Your task to perform on an android device: Show the shopping cart on newegg.com. Add dell xps to the cart on newegg.com Image 0: 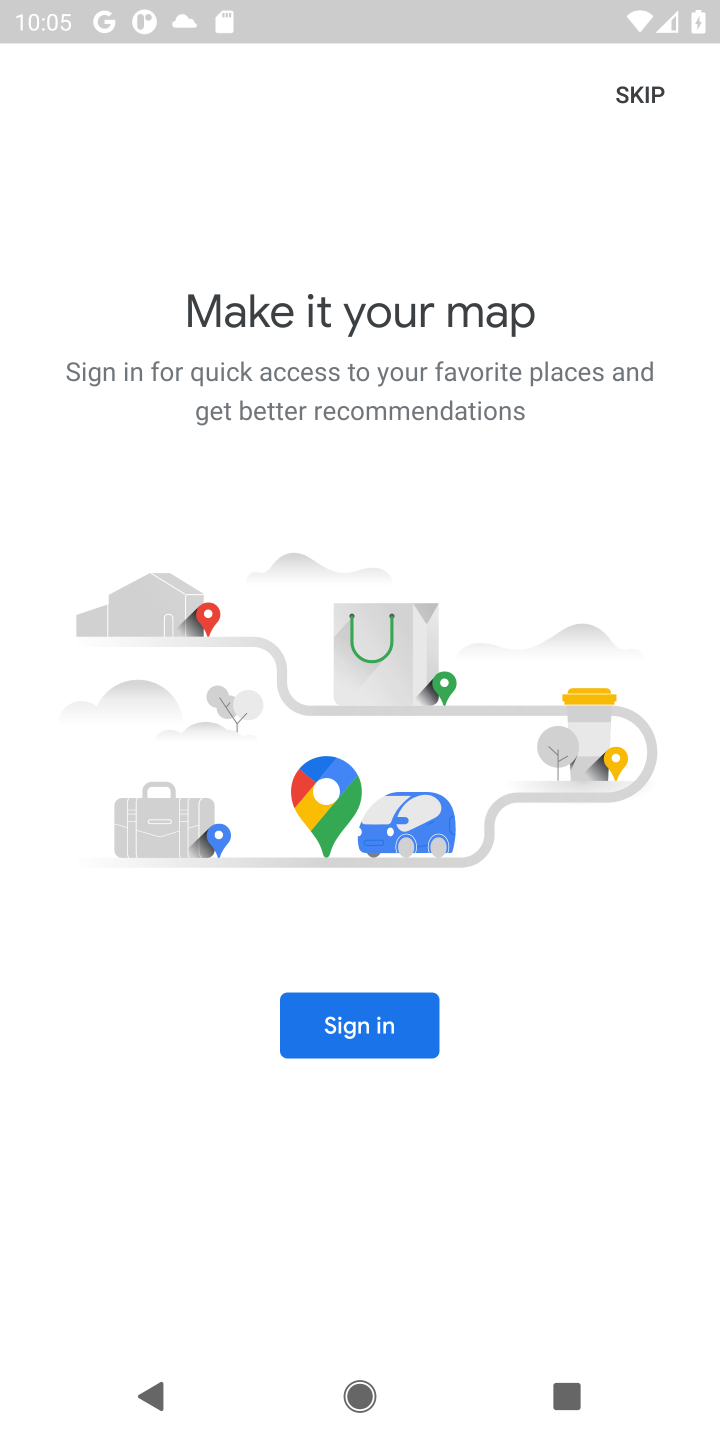
Step 0: press home button
Your task to perform on an android device: Show the shopping cart on newegg.com. Add dell xps to the cart on newegg.com Image 1: 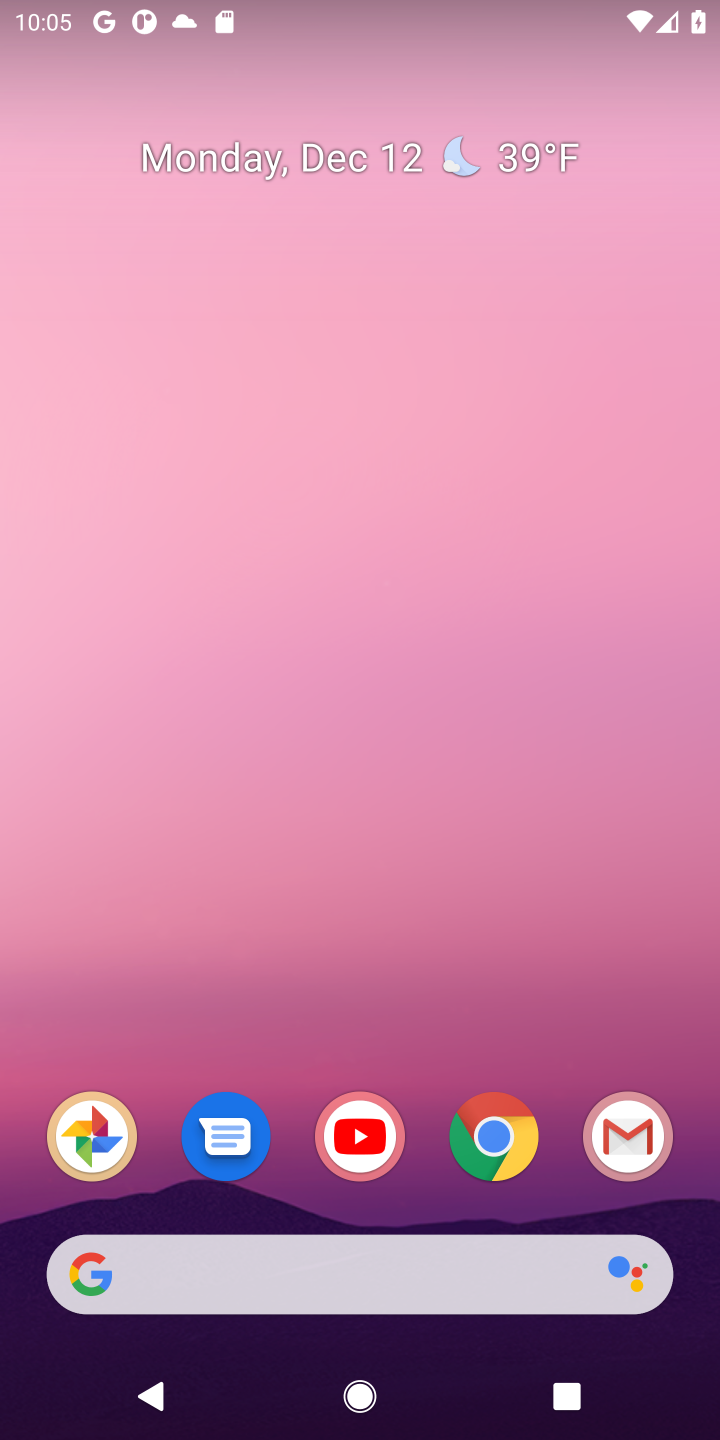
Step 1: click (490, 1160)
Your task to perform on an android device: Show the shopping cart on newegg.com. Add dell xps to the cart on newegg.com Image 2: 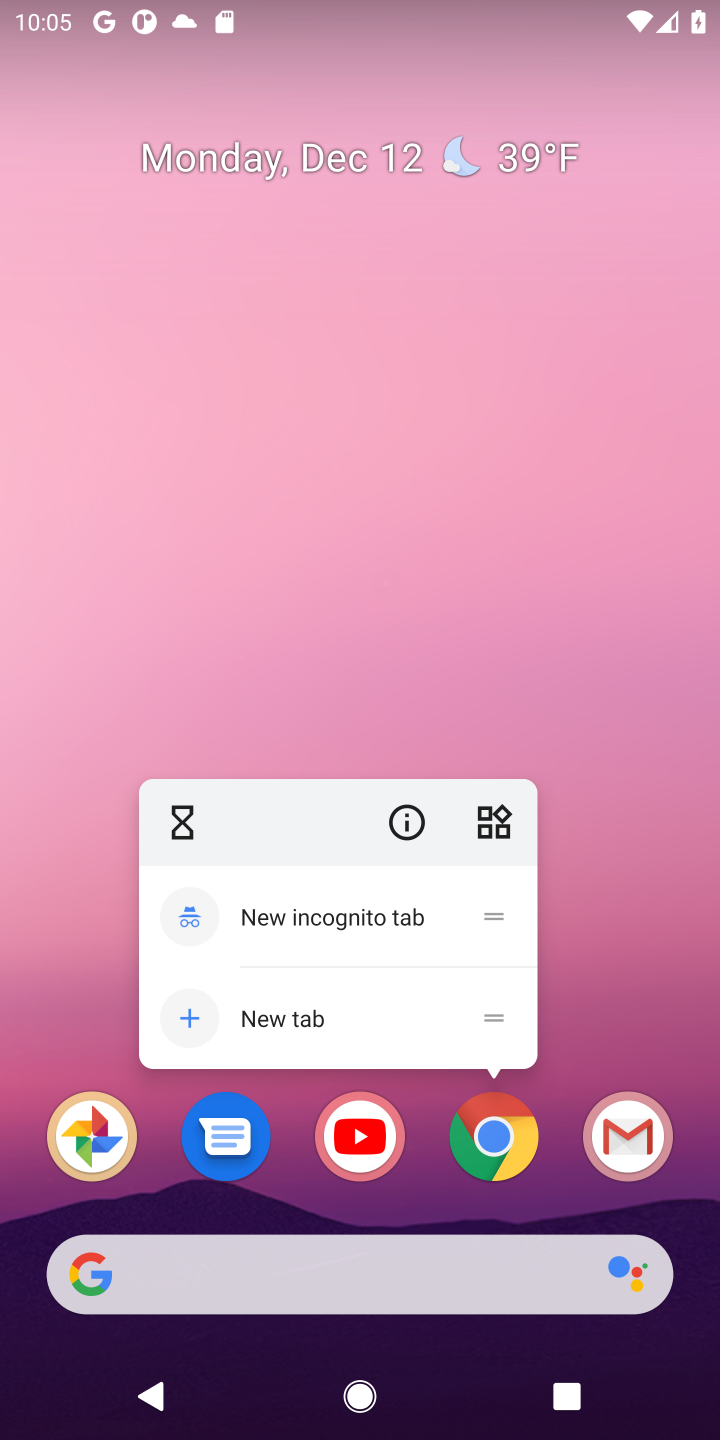
Step 2: click (499, 1149)
Your task to perform on an android device: Show the shopping cart on newegg.com. Add dell xps to the cart on newegg.com Image 3: 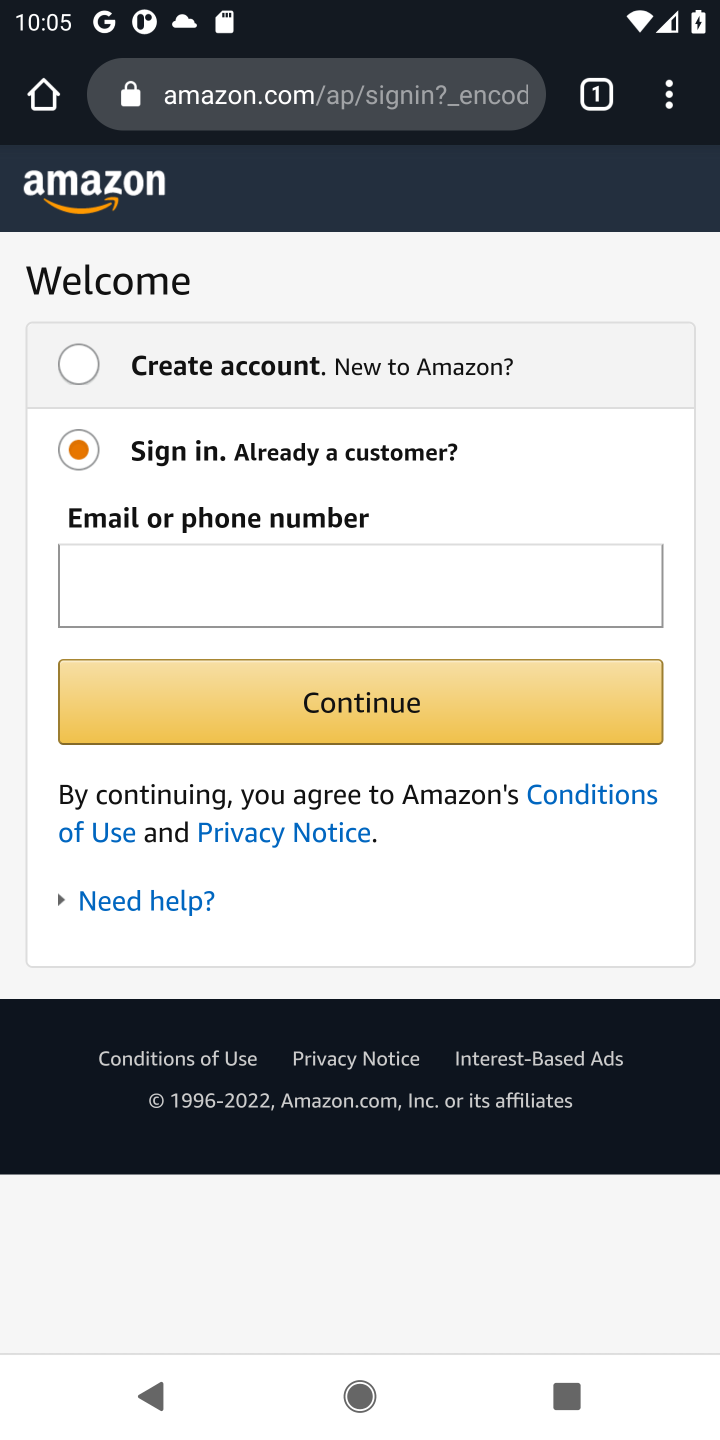
Step 3: click (292, 78)
Your task to perform on an android device: Show the shopping cart on newegg.com. Add dell xps to the cart on newegg.com Image 4: 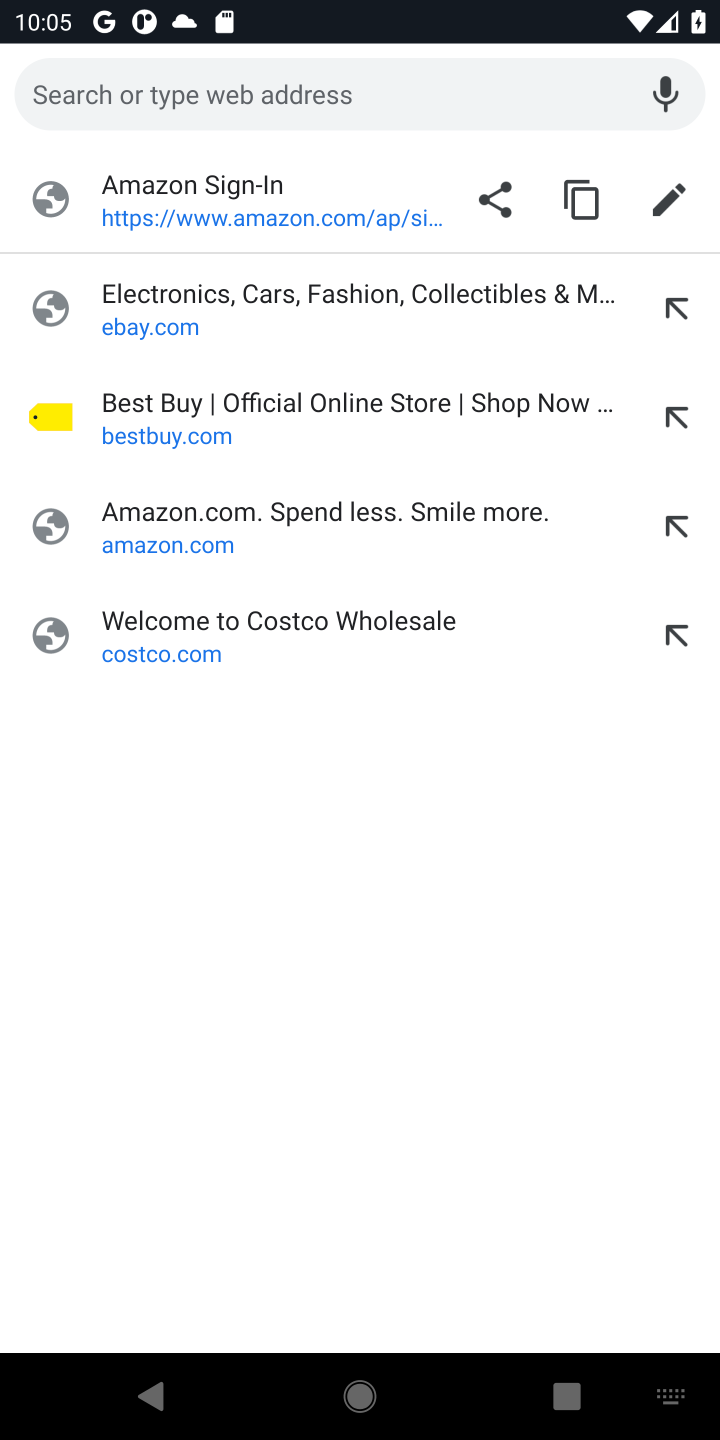
Step 4: type "newegg.com"
Your task to perform on an android device: Show the shopping cart on newegg.com. Add dell xps to the cart on newegg.com Image 5: 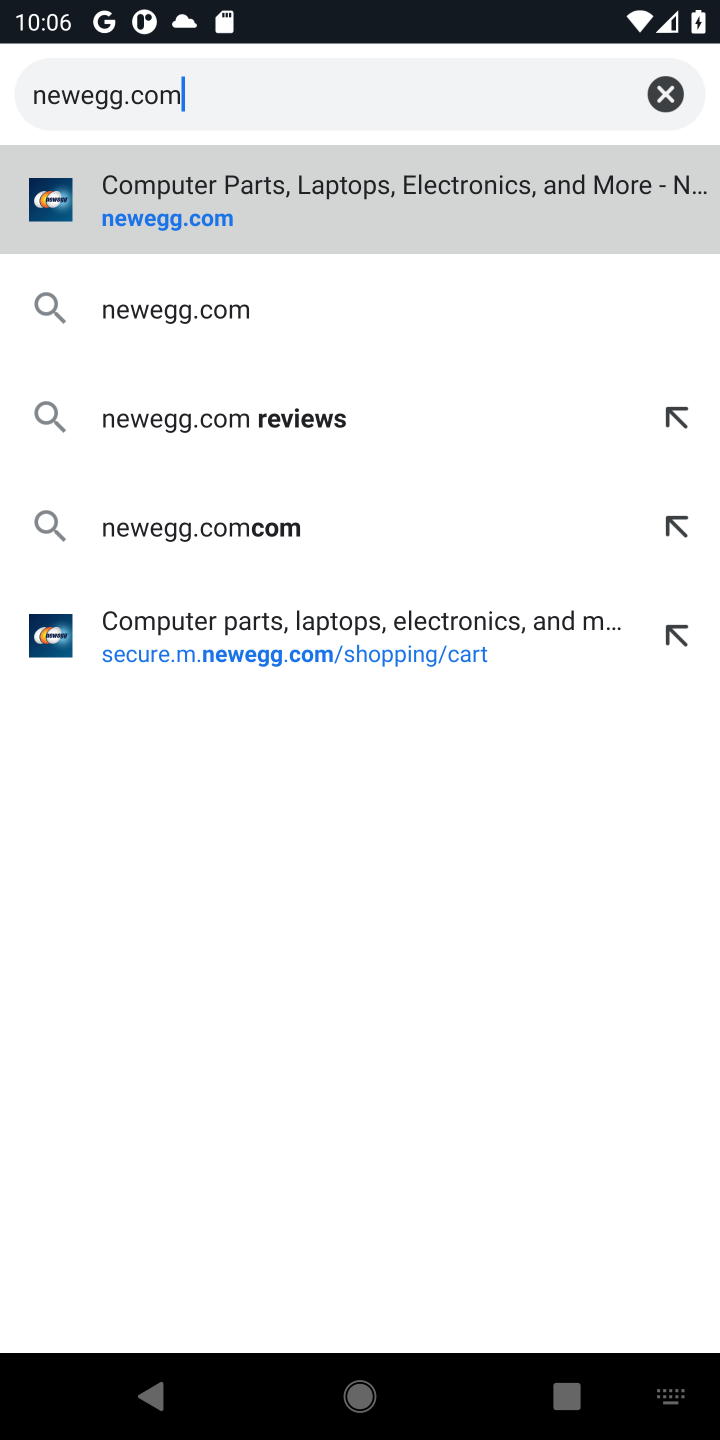
Step 5: click (129, 213)
Your task to perform on an android device: Show the shopping cart on newegg.com. Add dell xps to the cart on newegg.com Image 6: 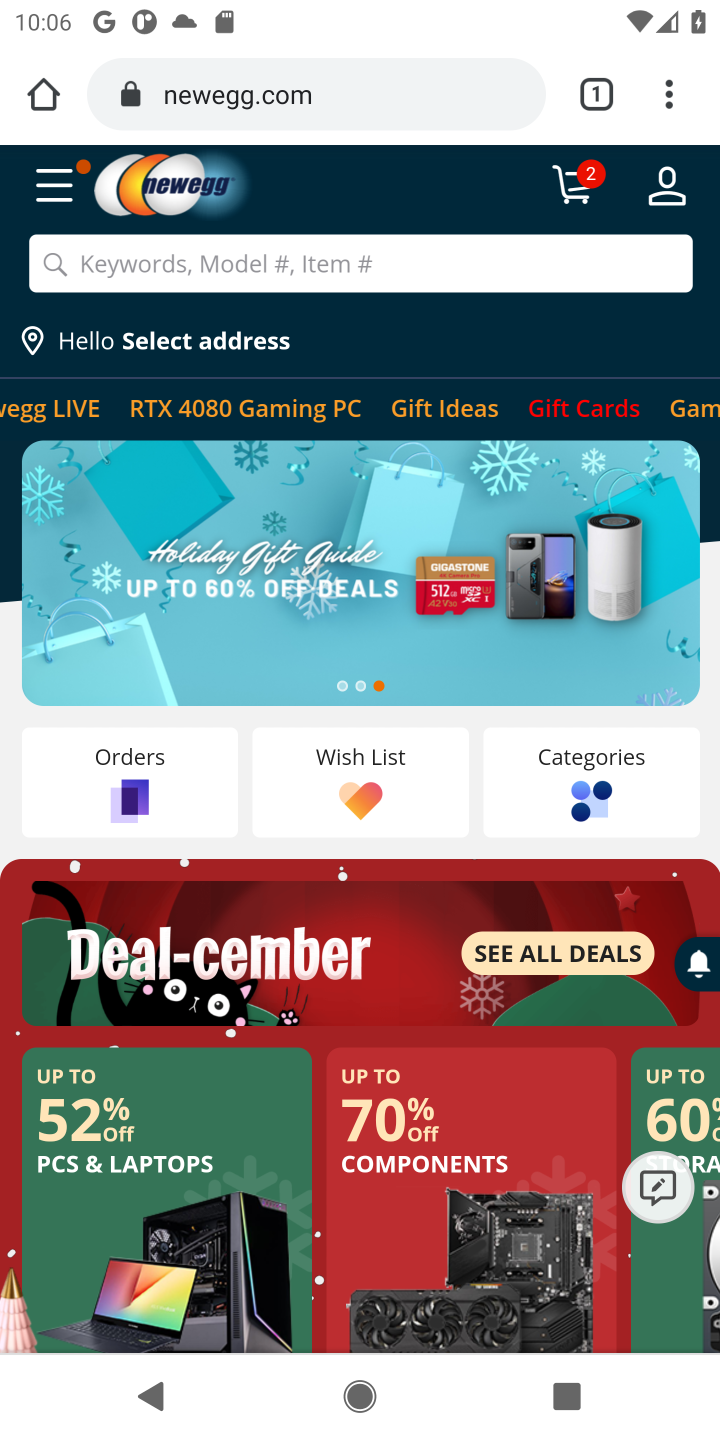
Step 6: click (572, 196)
Your task to perform on an android device: Show the shopping cart on newegg.com. Add dell xps to the cart on newegg.com Image 7: 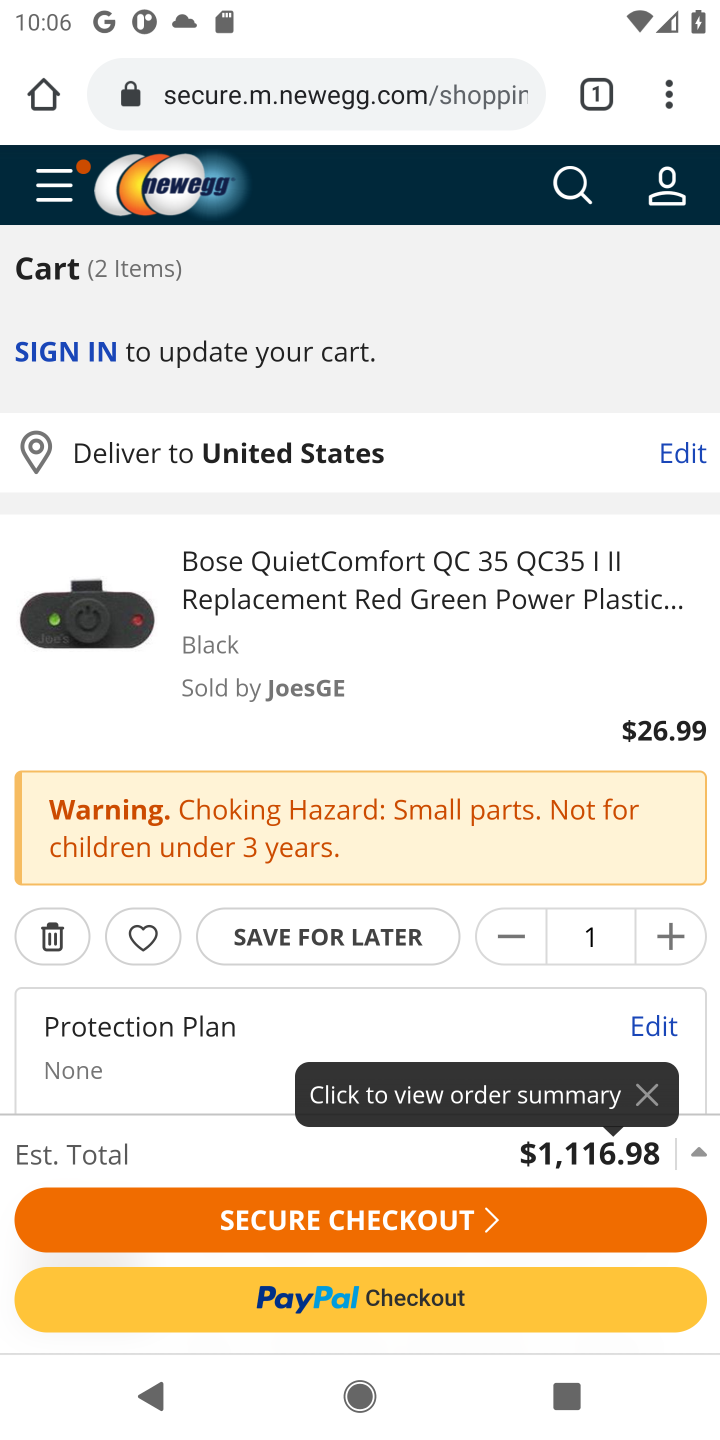
Step 7: click (567, 198)
Your task to perform on an android device: Show the shopping cart on newegg.com. Add dell xps to the cart on newegg.com Image 8: 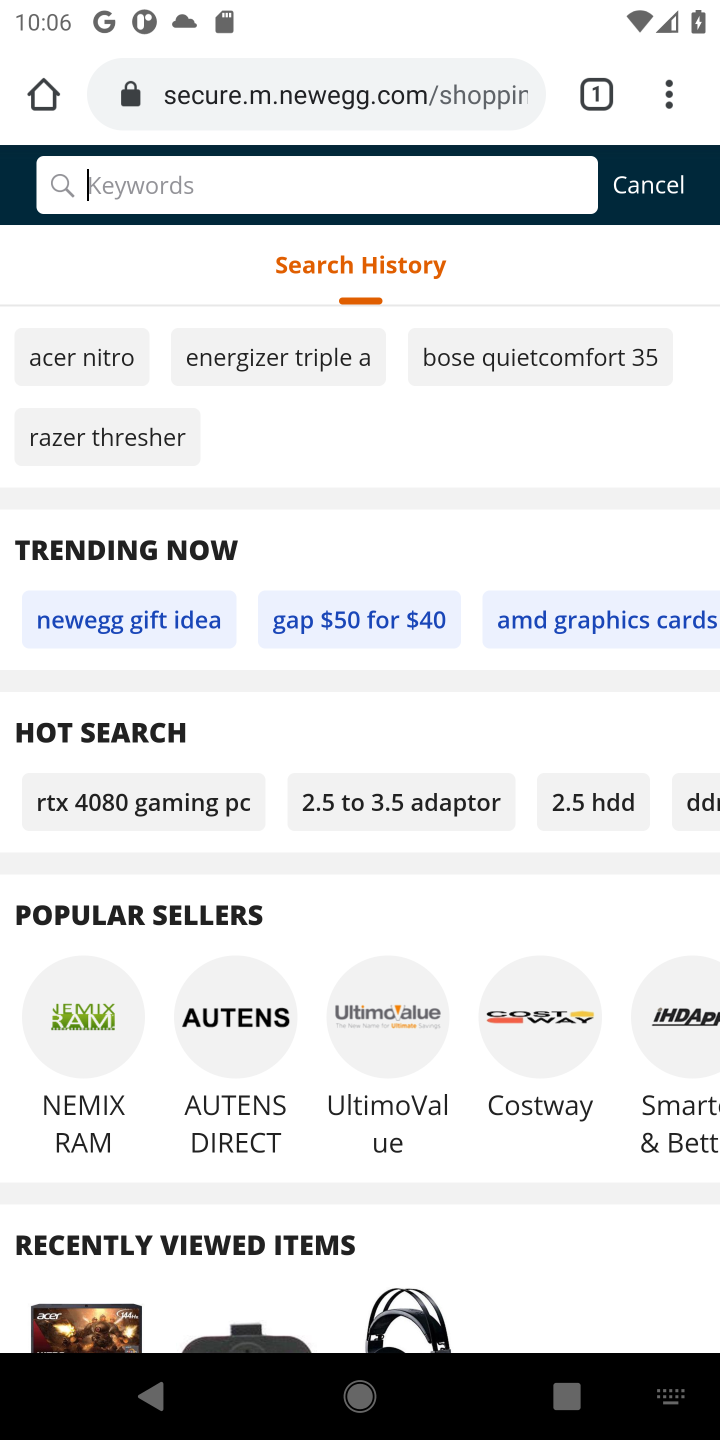
Step 8: type "dell xps"
Your task to perform on an android device: Show the shopping cart on newegg.com. Add dell xps to the cart on newegg.com Image 9: 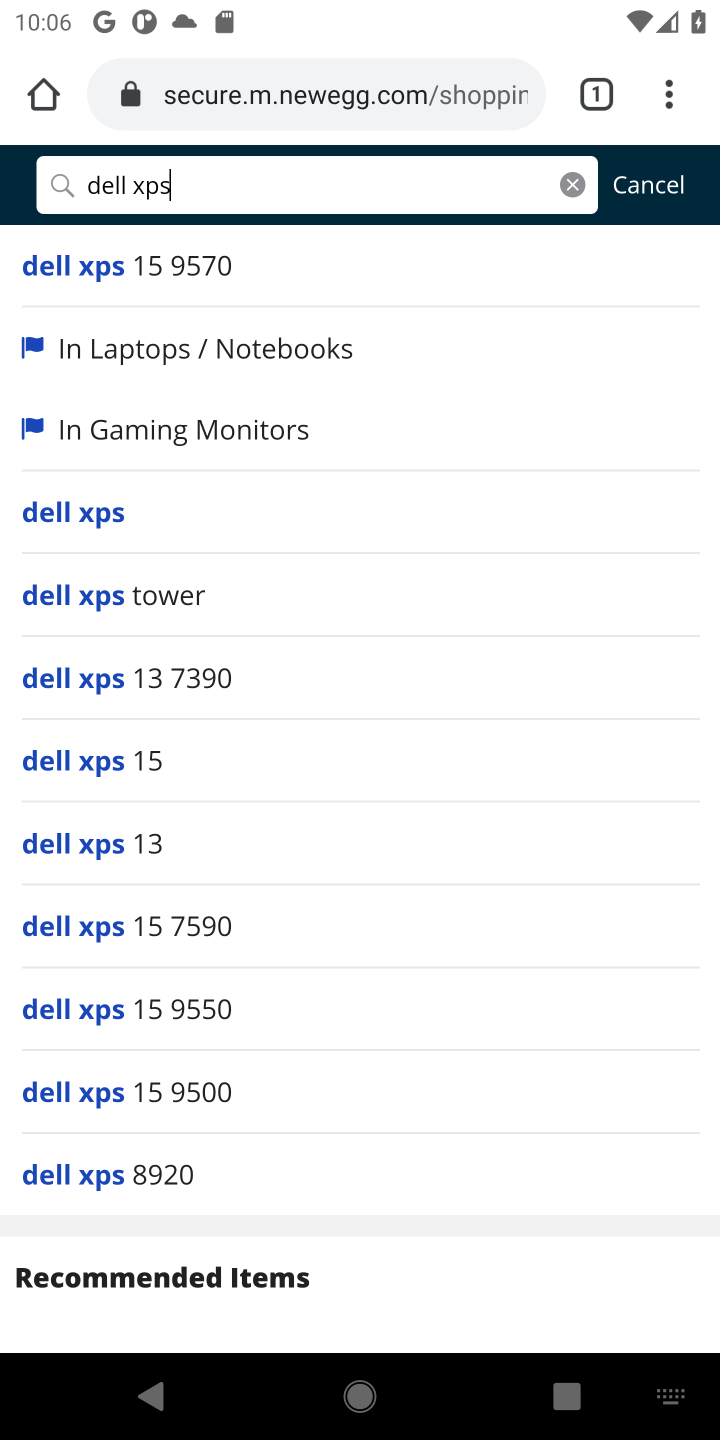
Step 9: click (46, 514)
Your task to perform on an android device: Show the shopping cart on newegg.com. Add dell xps to the cart on newegg.com Image 10: 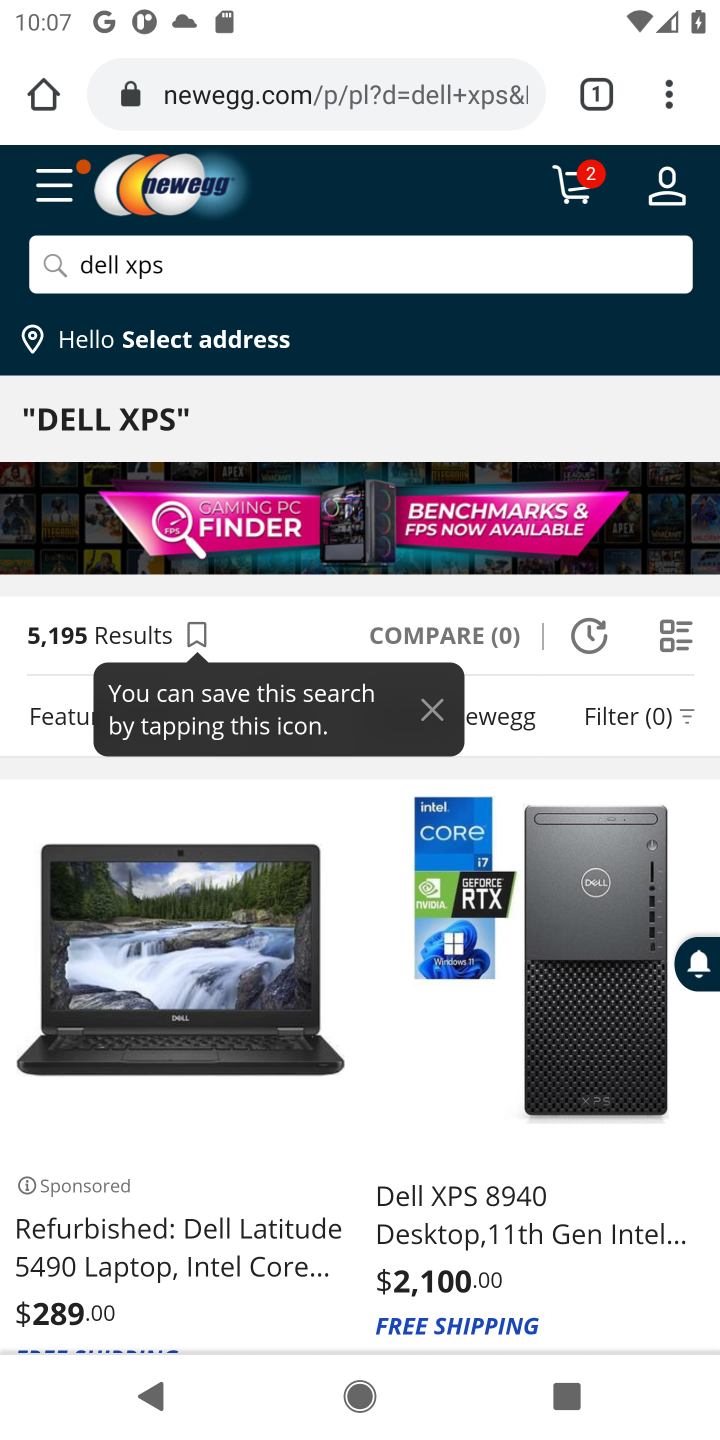
Step 10: drag from (242, 1100) to (270, 567)
Your task to perform on an android device: Show the shopping cart on newegg.com. Add dell xps to the cart on newegg.com Image 11: 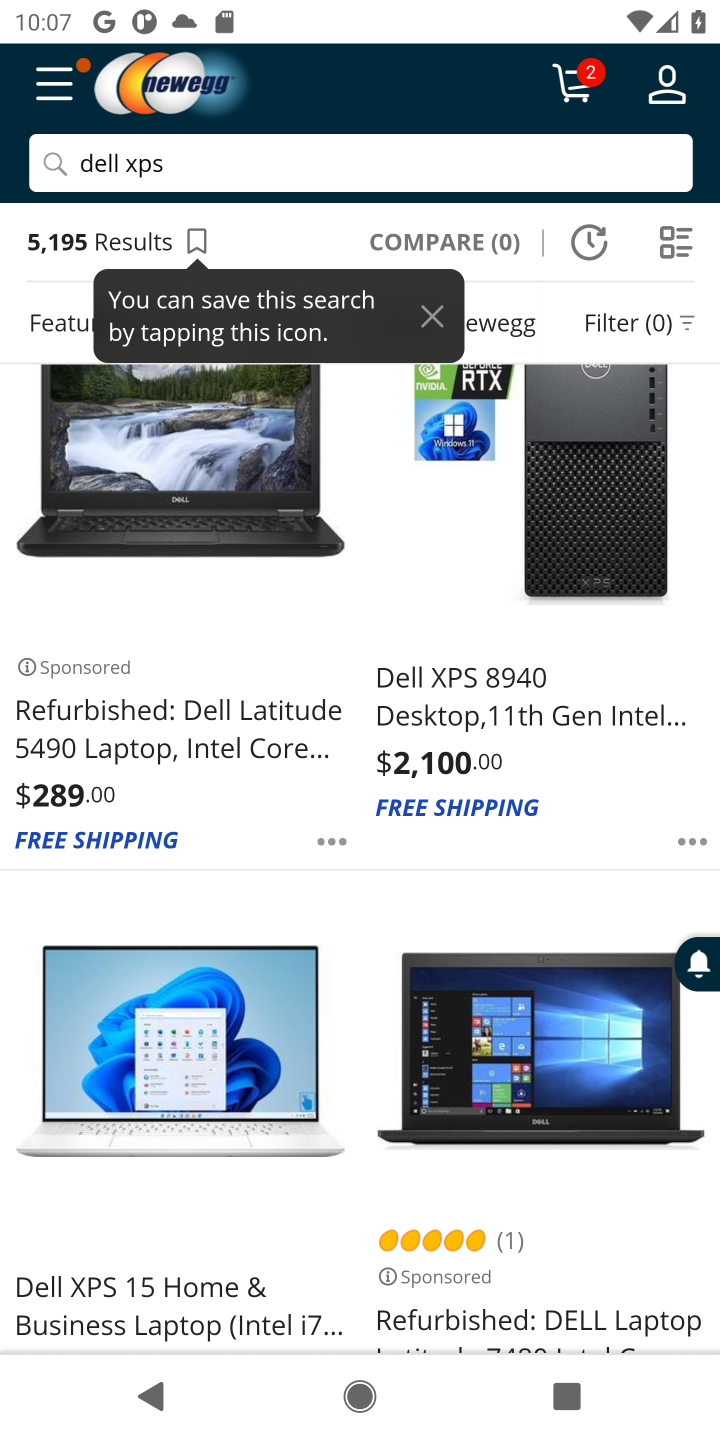
Step 11: click (547, 726)
Your task to perform on an android device: Show the shopping cart on newegg.com. Add dell xps to the cart on newegg.com Image 12: 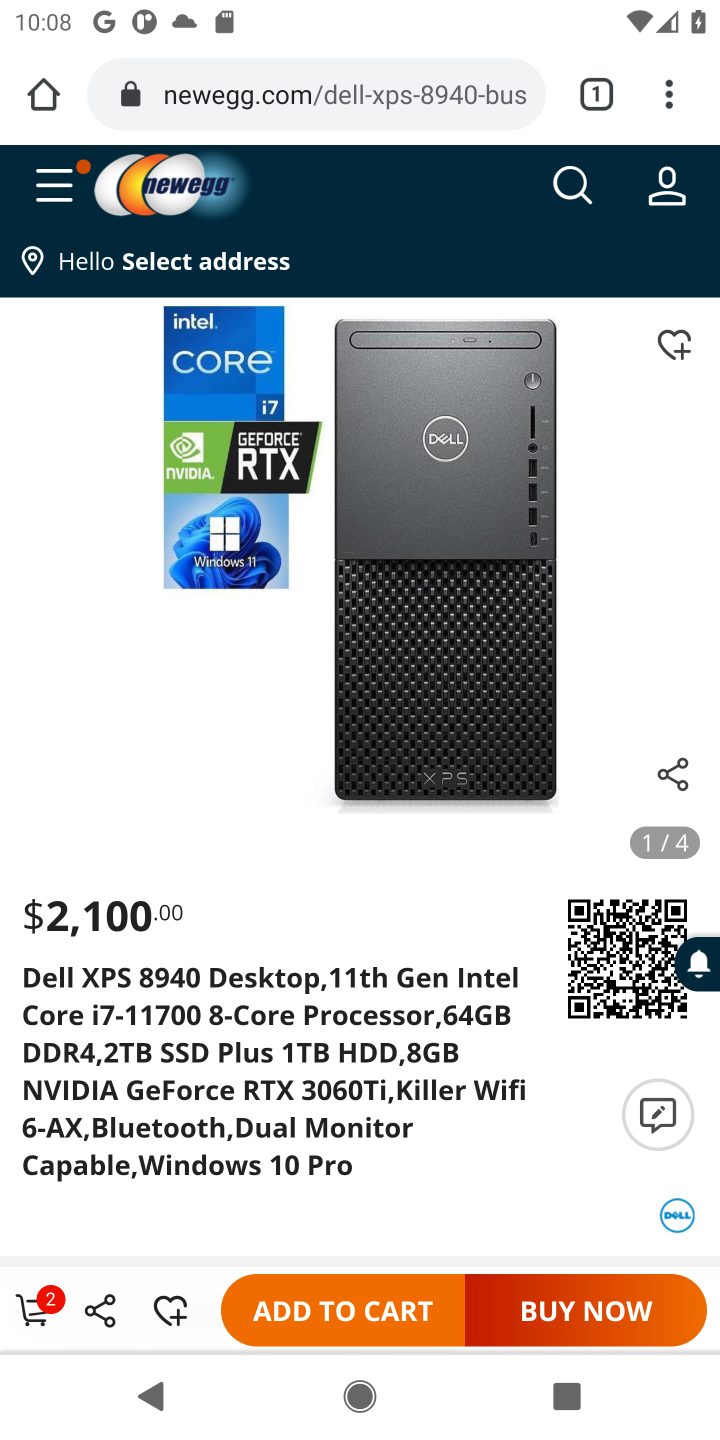
Step 12: click (327, 1316)
Your task to perform on an android device: Show the shopping cart on newegg.com. Add dell xps to the cart on newegg.com Image 13: 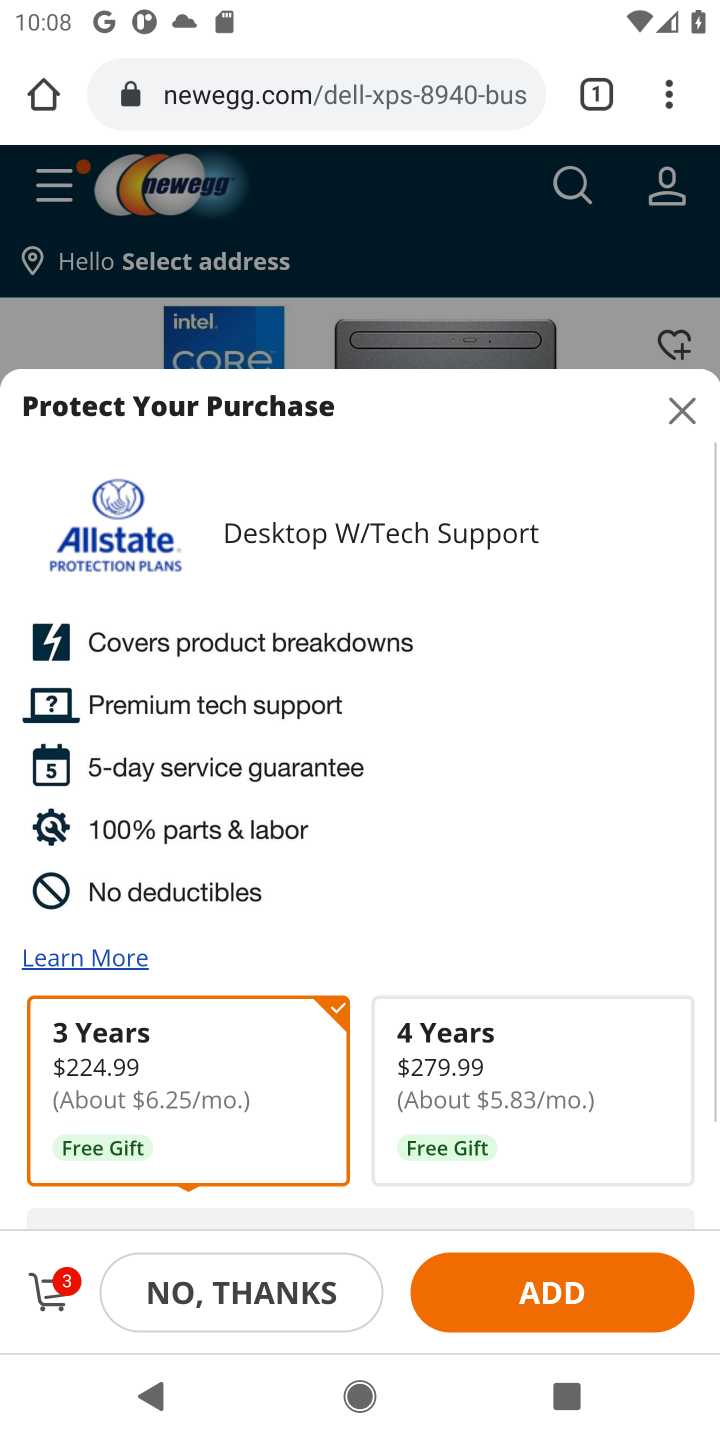
Step 13: task complete